Your task to perform on an android device: Open eBay Image 0: 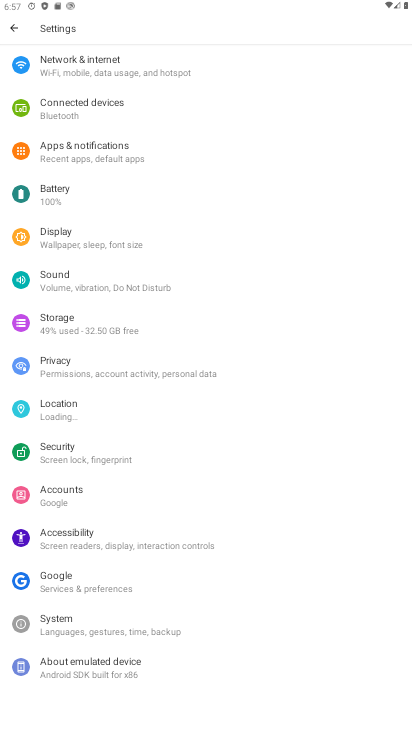
Step 0: drag from (357, 659) to (239, 271)
Your task to perform on an android device: Open eBay Image 1: 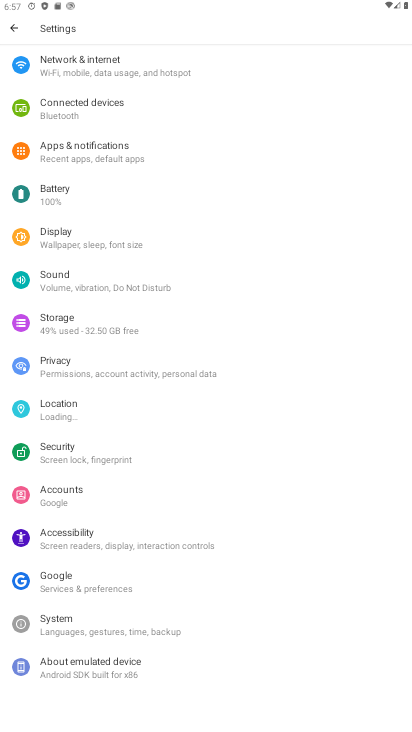
Step 1: press home button
Your task to perform on an android device: Open eBay Image 2: 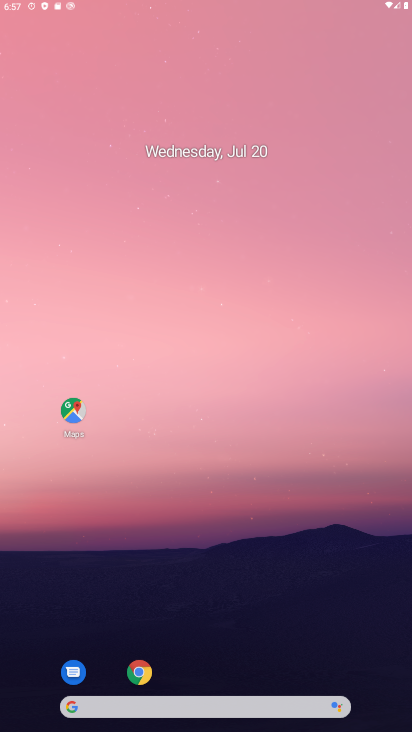
Step 2: drag from (355, 639) to (211, 41)
Your task to perform on an android device: Open eBay Image 3: 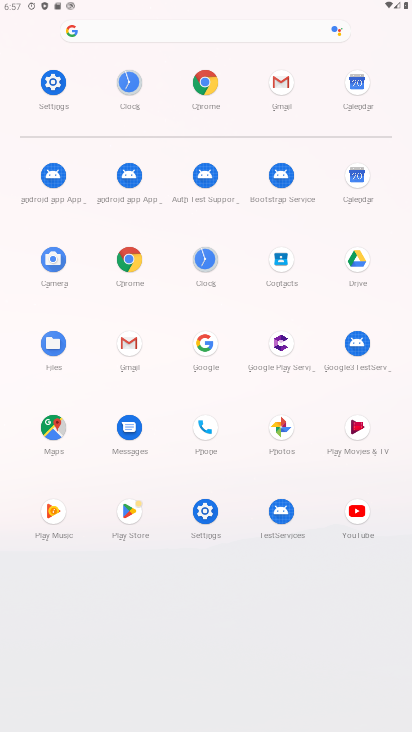
Step 3: click (198, 352)
Your task to perform on an android device: Open eBay Image 4: 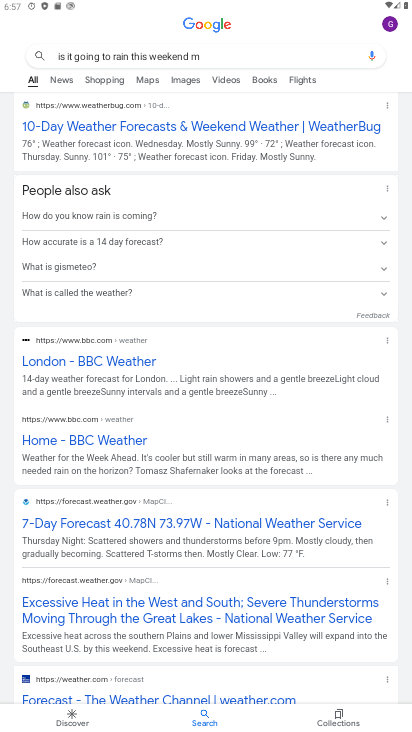
Step 4: press back button
Your task to perform on an android device: Open eBay Image 5: 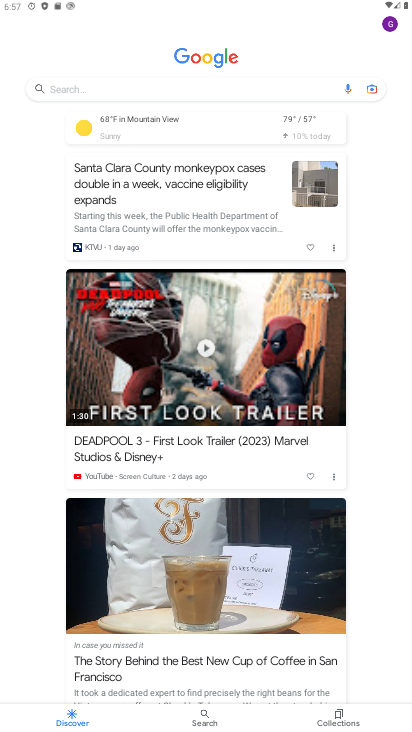
Step 5: click (102, 86)
Your task to perform on an android device: Open eBay Image 6: 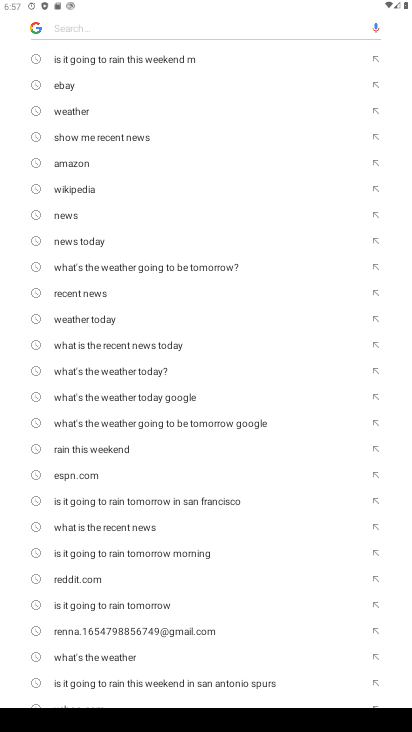
Step 6: click (52, 93)
Your task to perform on an android device: Open eBay Image 7: 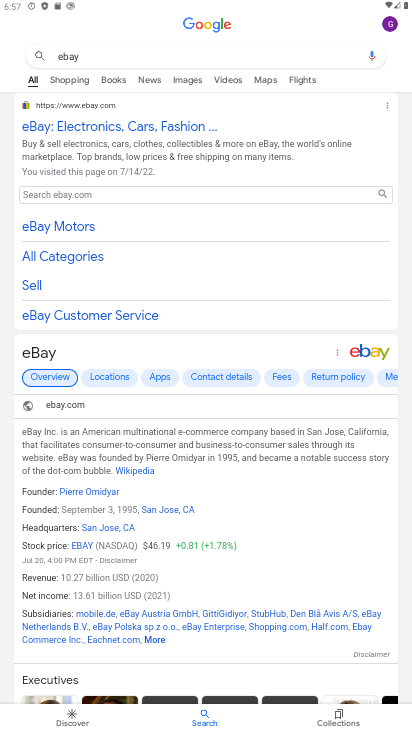
Step 7: task complete